Your task to perform on an android device: toggle airplane mode Image 0: 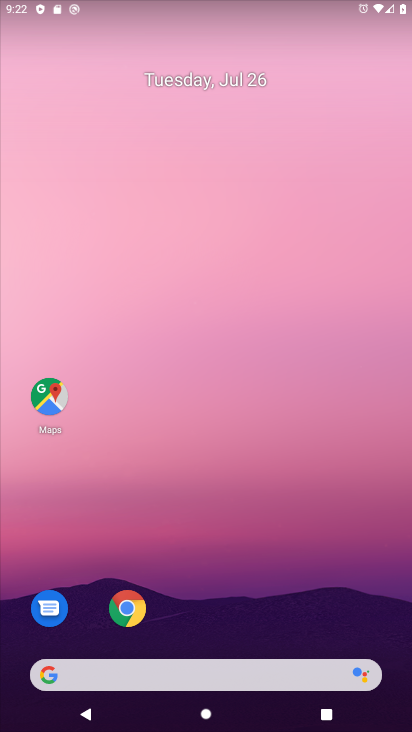
Step 0: drag from (222, 726) to (188, 51)
Your task to perform on an android device: toggle airplane mode Image 1: 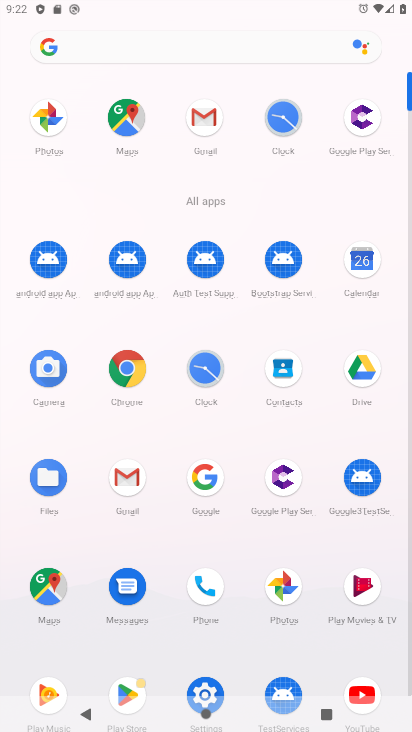
Step 1: click (208, 684)
Your task to perform on an android device: toggle airplane mode Image 2: 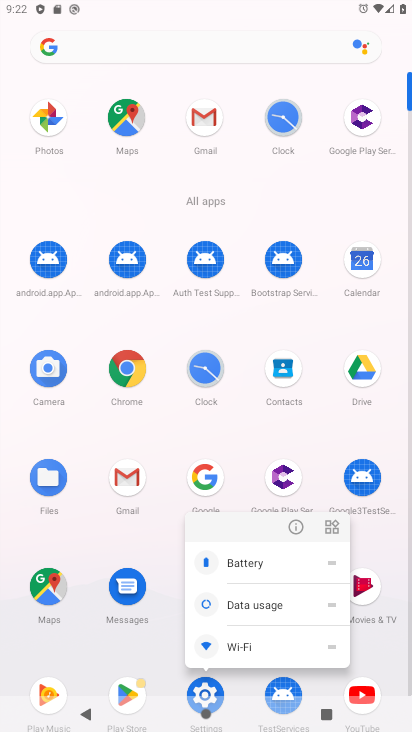
Step 2: click (206, 688)
Your task to perform on an android device: toggle airplane mode Image 3: 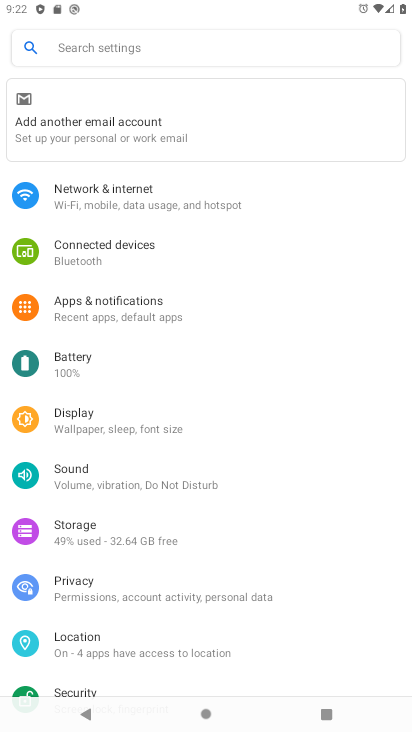
Step 3: click (77, 193)
Your task to perform on an android device: toggle airplane mode Image 4: 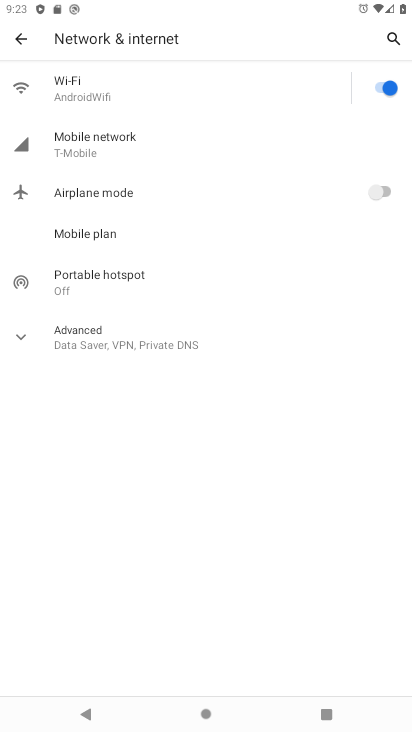
Step 4: click (384, 189)
Your task to perform on an android device: toggle airplane mode Image 5: 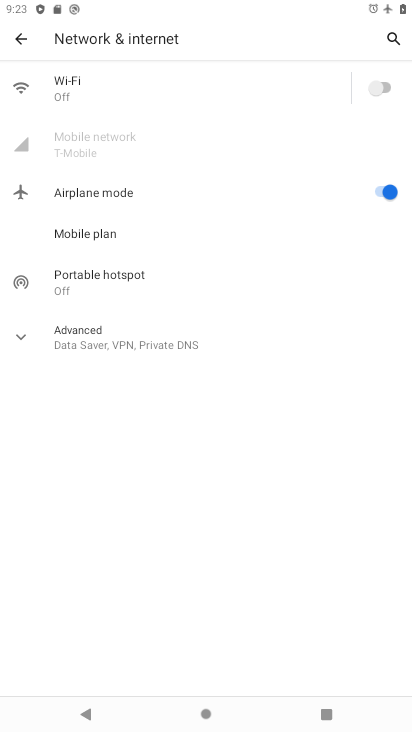
Step 5: task complete